Your task to perform on an android device: delete a single message in the gmail app Image 0: 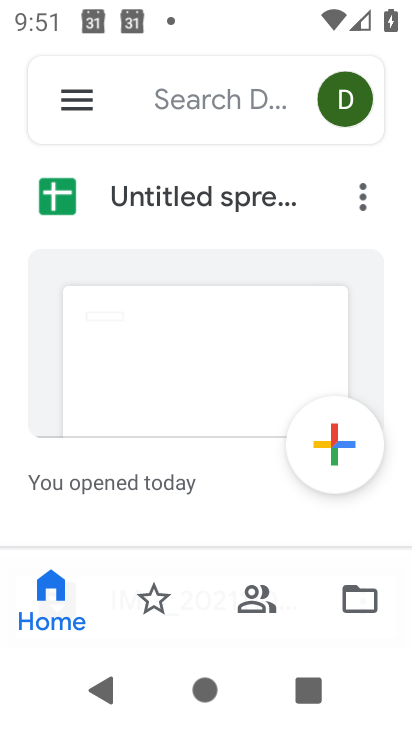
Step 0: press home button
Your task to perform on an android device: delete a single message in the gmail app Image 1: 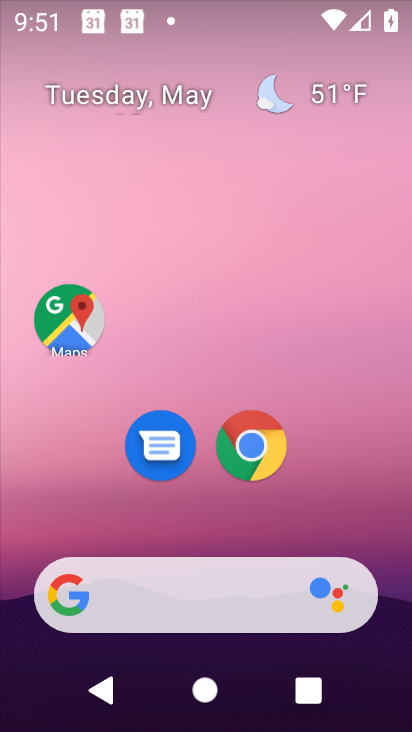
Step 1: drag from (199, 576) to (187, 9)
Your task to perform on an android device: delete a single message in the gmail app Image 2: 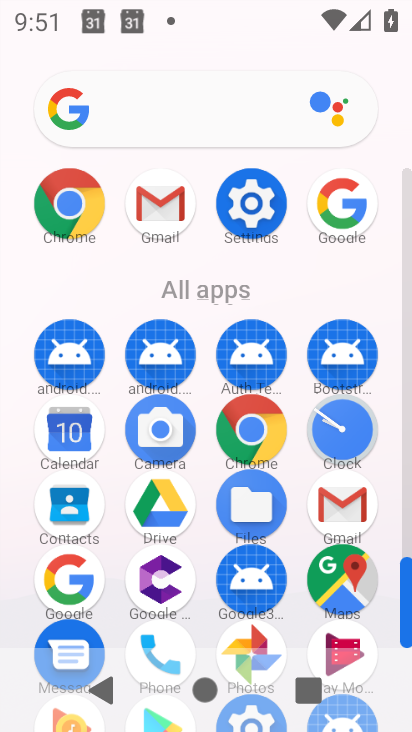
Step 2: click (174, 210)
Your task to perform on an android device: delete a single message in the gmail app Image 3: 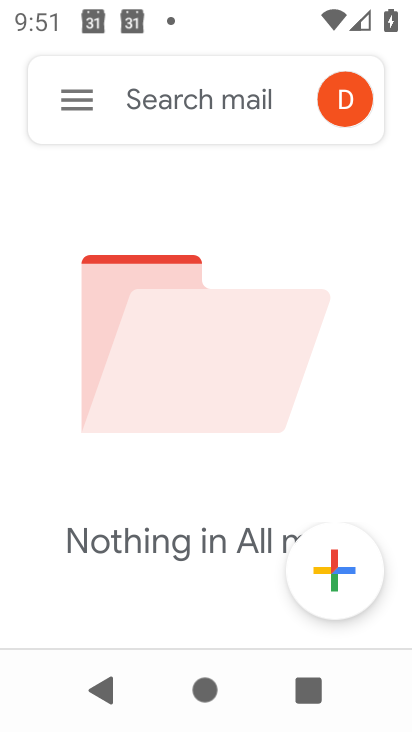
Step 3: click (70, 86)
Your task to perform on an android device: delete a single message in the gmail app Image 4: 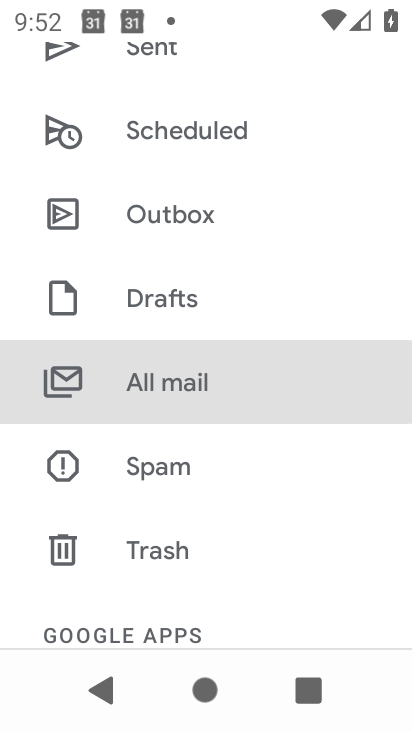
Step 4: click (136, 411)
Your task to perform on an android device: delete a single message in the gmail app Image 5: 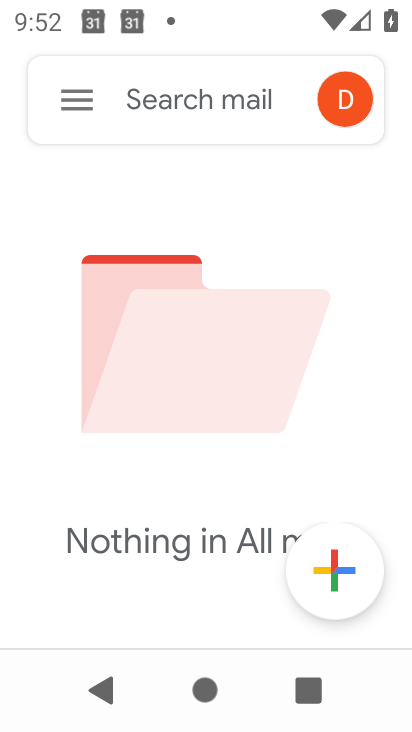
Step 5: task complete